Your task to perform on an android device: choose inbox layout in the gmail app Image 0: 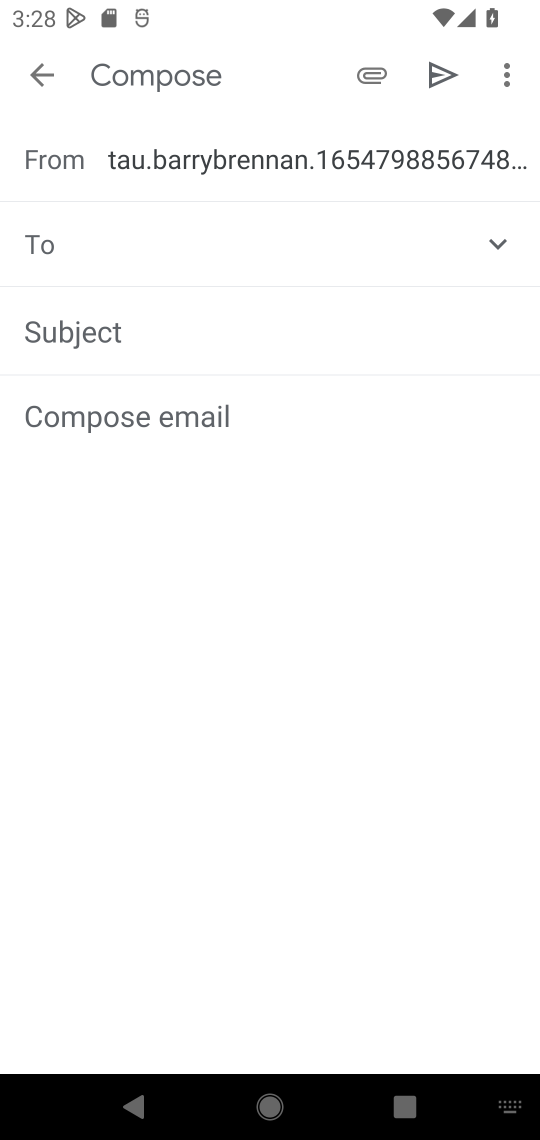
Step 0: task complete